Your task to perform on an android device: Search for Italian restaurants on Maps Image 0: 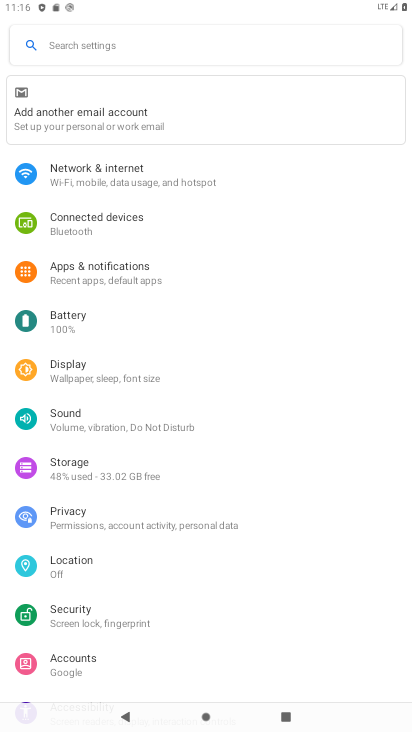
Step 0: press home button
Your task to perform on an android device: Search for Italian restaurants on Maps Image 1: 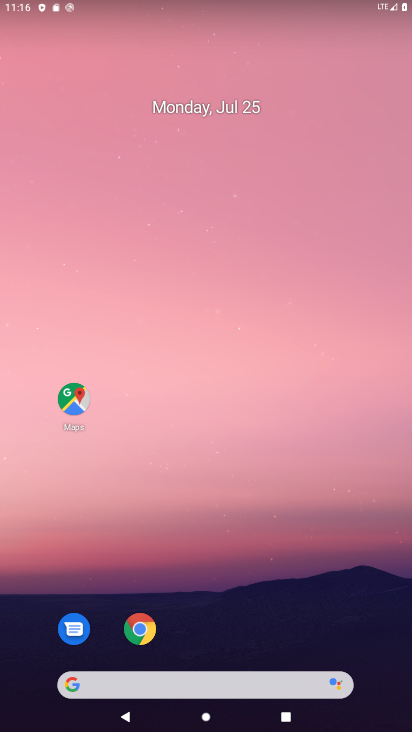
Step 1: click (81, 397)
Your task to perform on an android device: Search for Italian restaurants on Maps Image 2: 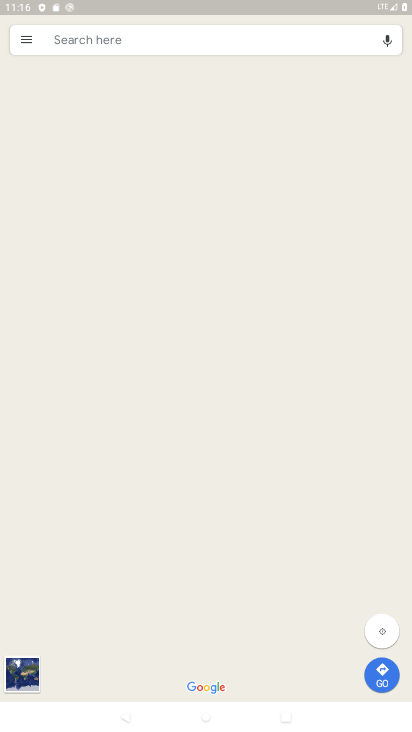
Step 2: click (233, 42)
Your task to perform on an android device: Search for Italian restaurants on Maps Image 3: 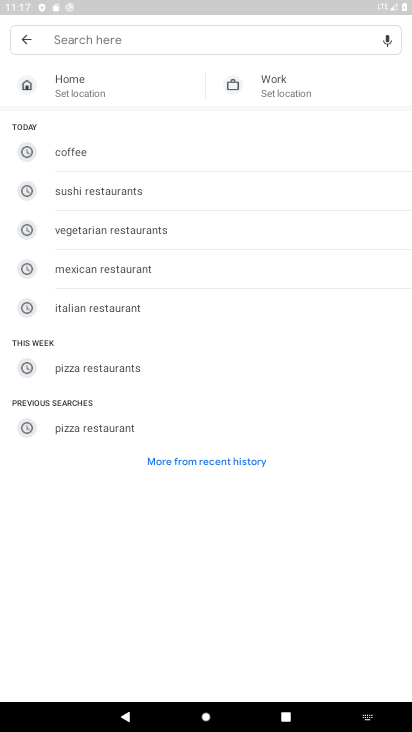
Step 3: click (101, 315)
Your task to perform on an android device: Search for Italian restaurants on Maps Image 4: 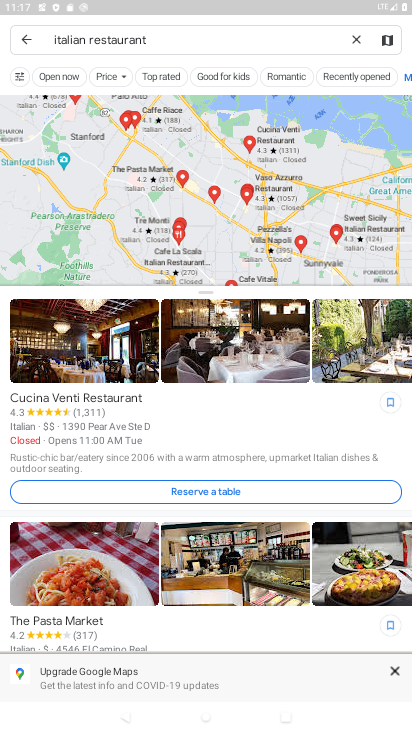
Step 4: task complete